Your task to perform on an android device: Open the web browser Image 0: 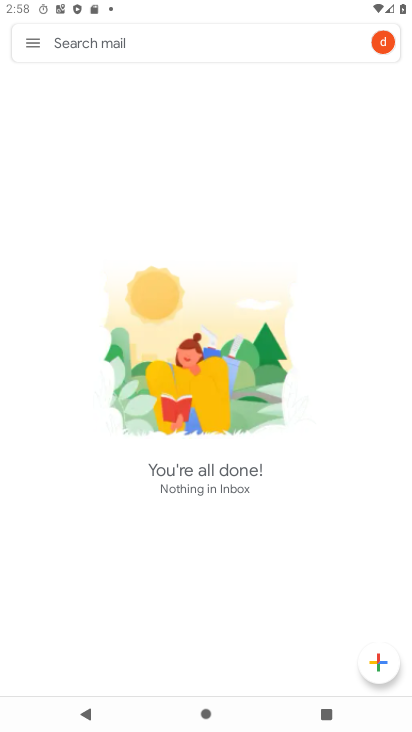
Step 0: press home button
Your task to perform on an android device: Open the web browser Image 1: 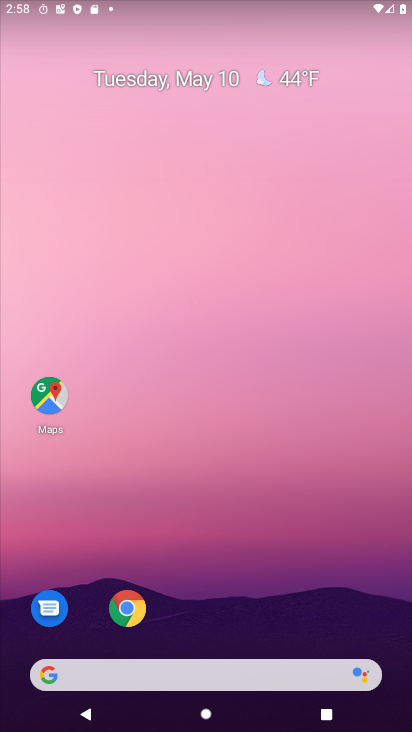
Step 1: click (129, 611)
Your task to perform on an android device: Open the web browser Image 2: 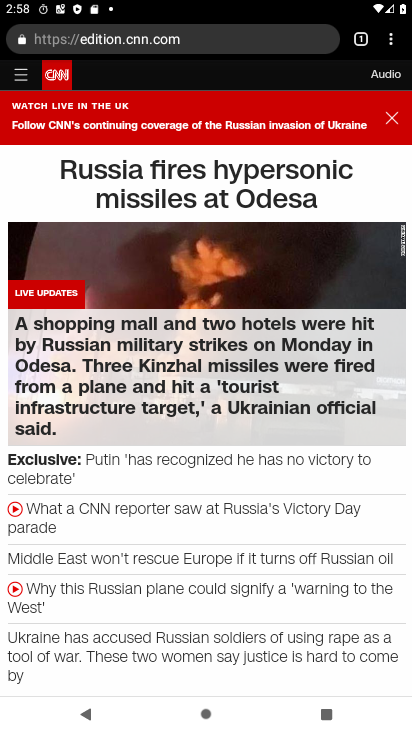
Step 2: task complete